Your task to perform on an android device: change the clock display to analog Image 0: 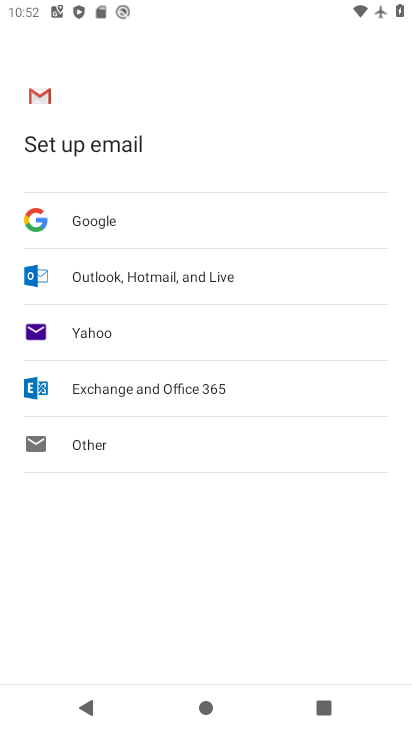
Step 0: press home button
Your task to perform on an android device: change the clock display to analog Image 1: 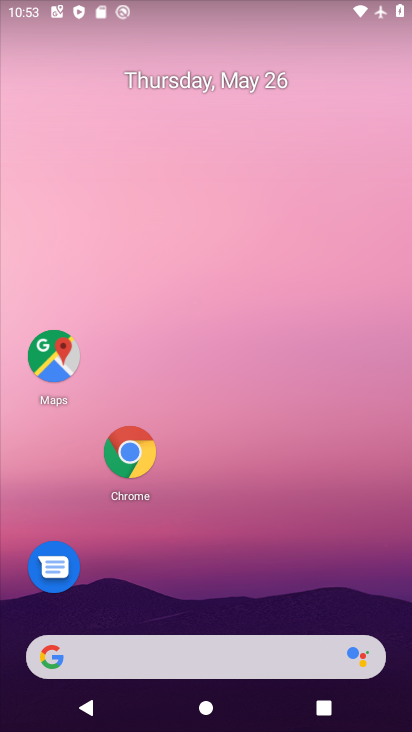
Step 1: drag from (114, 671) to (263, 100)
Your task to perform on an android device: change the clock display to analog Image 2: 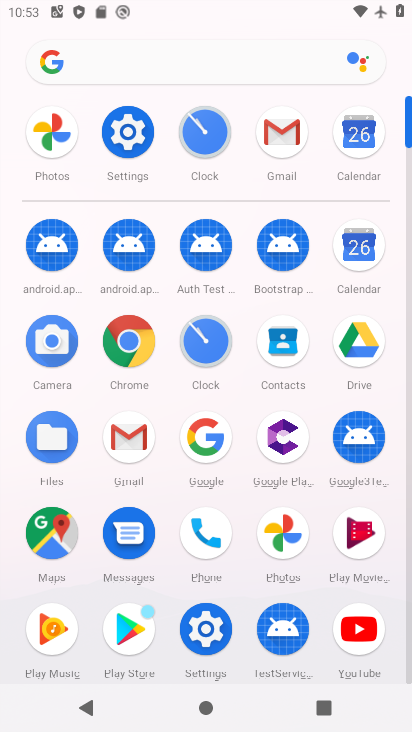
Step 2: click (196, 141)
Your task to perform on an android device: change the clock display to analog Image 3: 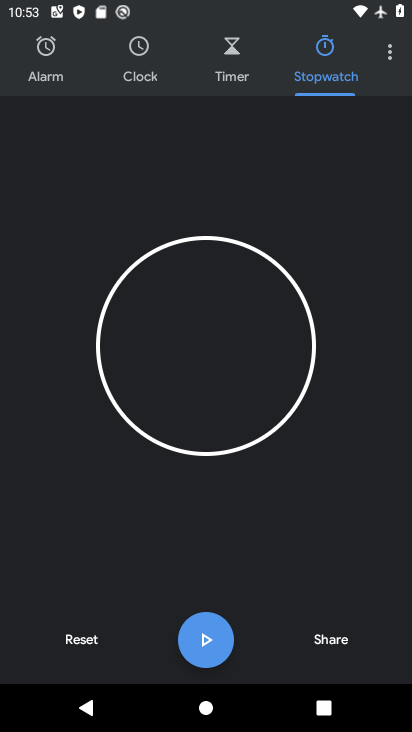
Step 3: click (391, 57)
Your task to perform on an android device: change the clock display to analog Image 4: 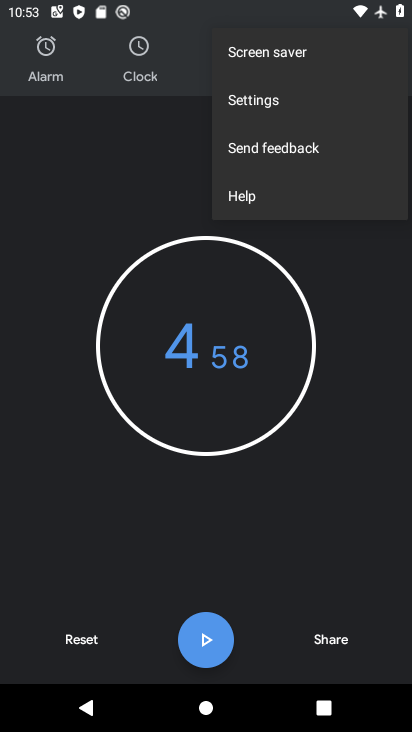
Step 4: click (248, 97)
Your task to perform on an android device: change the clock display to analog Image 5: 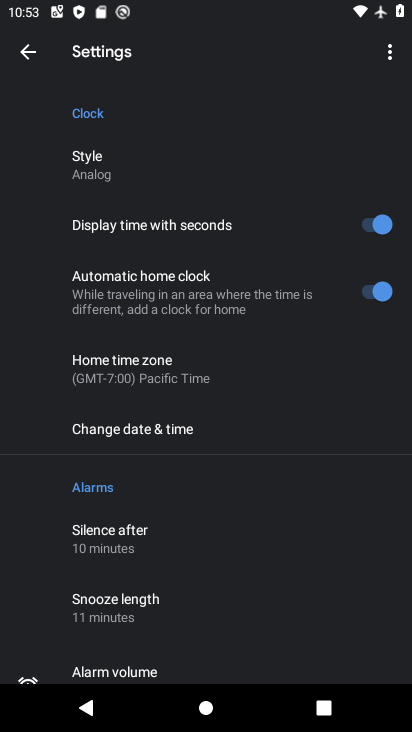
Step 5: task complete